Your task to perform on an android device: Turn off the flashlight Image 0: 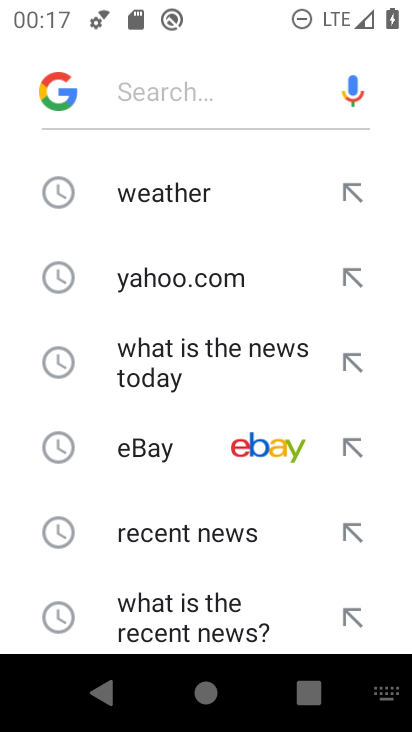
Step 0: press home button
Your task to perform on an android device: Turn off the flashlight Image 1: 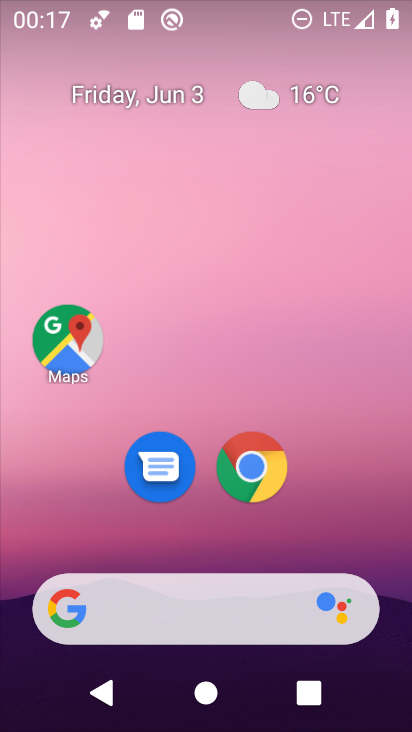
Step 1: drag from (235, 33) to (268, 347)
Your task to perform on an android device: Turn off the flashlight Image 2: 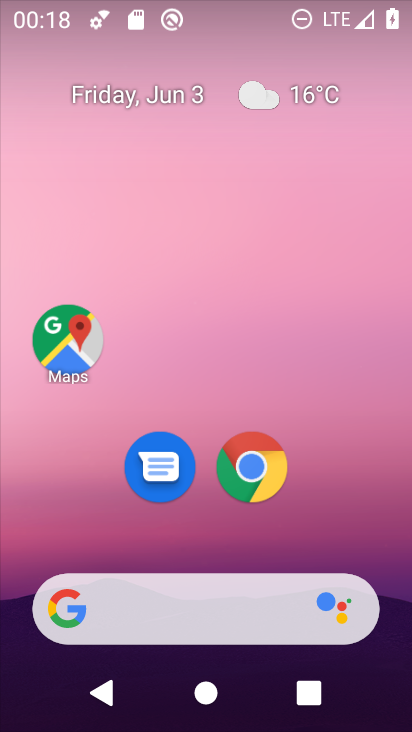
Step 2: drag from (228, 27) to (304, 508)
Your task to perform on an android device: Turn off the flashlight Image 3: 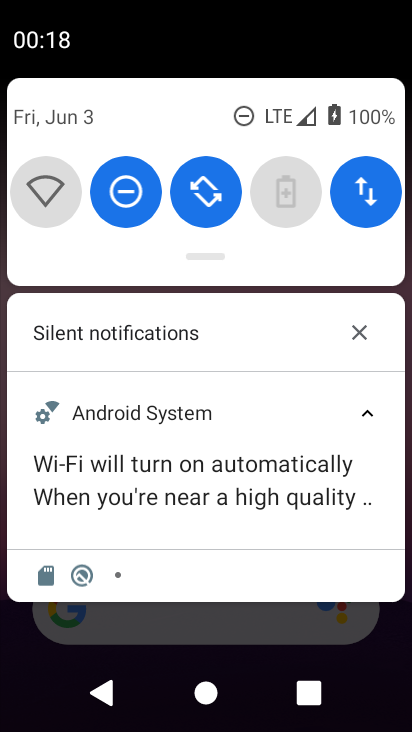
Step 3: drag from (199, 252) to (205, 513)
Your task to perform on an android device: Turn off the flashlight Image 4: 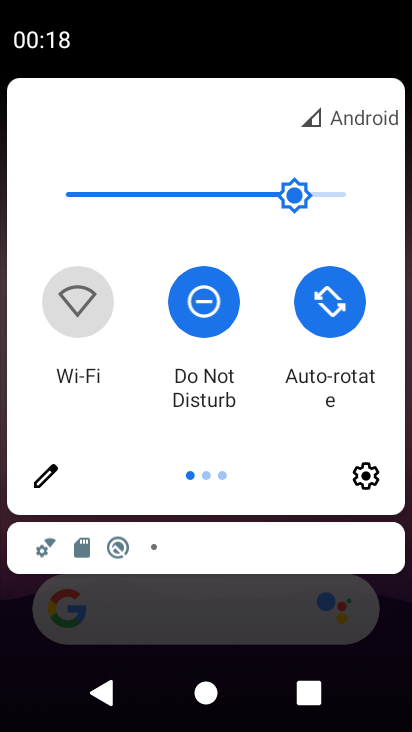
Step 4: click (55, 474)
Your task to perform on an android device: Turn off the flashlight Image 5: 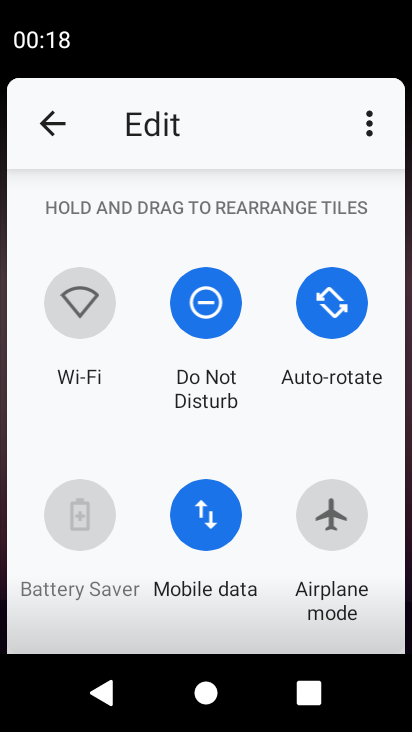
Step 5: task complete